Your task to perform on an android device: Go to eBay Image 0: 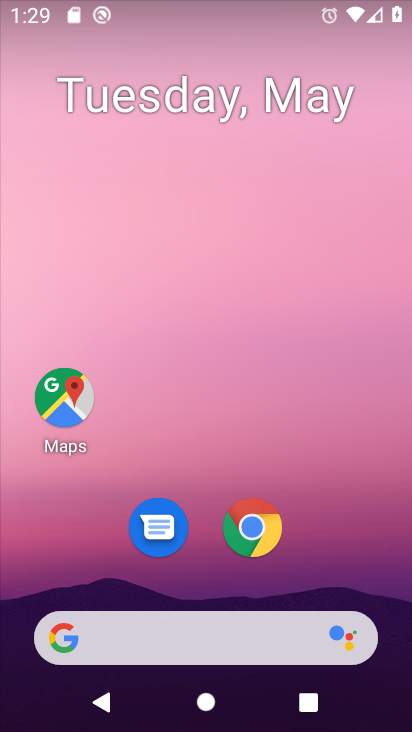
Step 0: click (226, 660)
Your task to perform on an android device: Go to eBay Image 1: 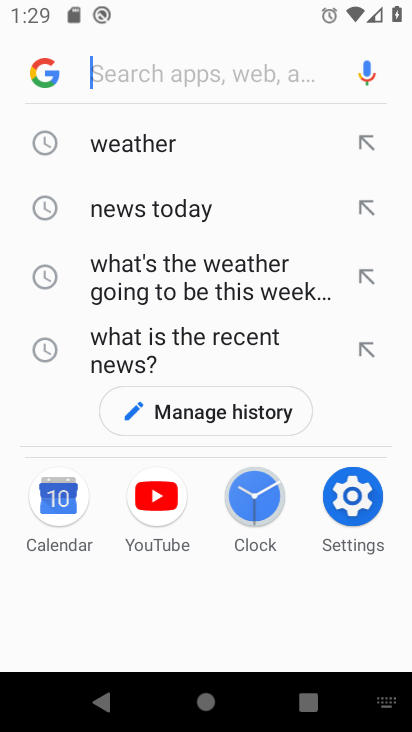
Step 1: type "eb"
Your task to perform on an android device: Go to eBay Image 2: 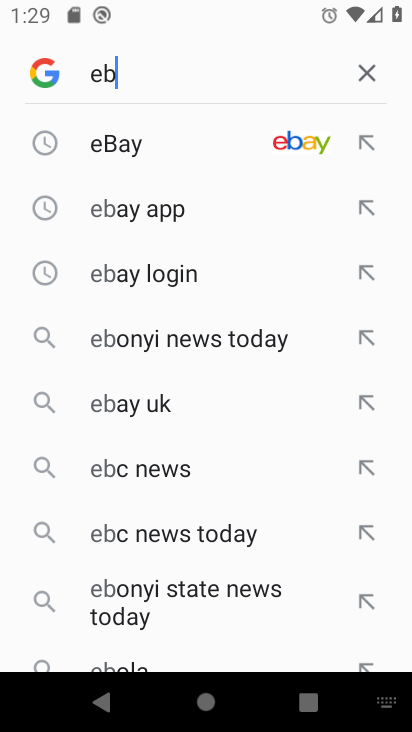
Step 2: click (260, 8)
Your task to perform on an android device: Go to eBay Image 3: 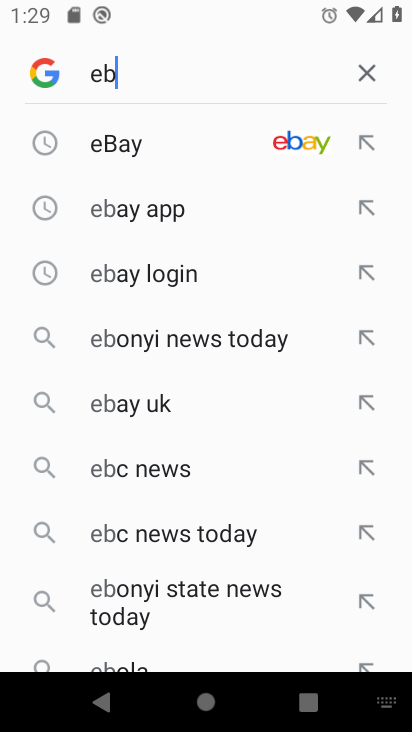
Step 3: click (258, 132)
Your task to perform on an android device: Go to eBay Image 4: 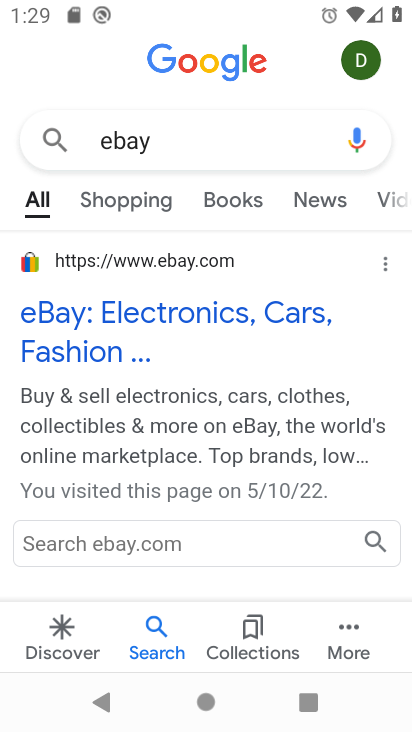
Step 4: click (132, 262)
Your task to perform on an android device: Go to eBay Image 5: 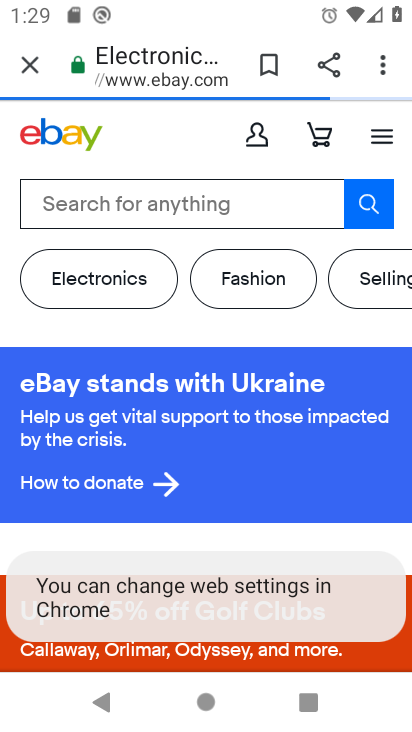
Step 5: task complete